Your task to perform on an android device: Open Google Chrome and open the bookmarks view Image 0: 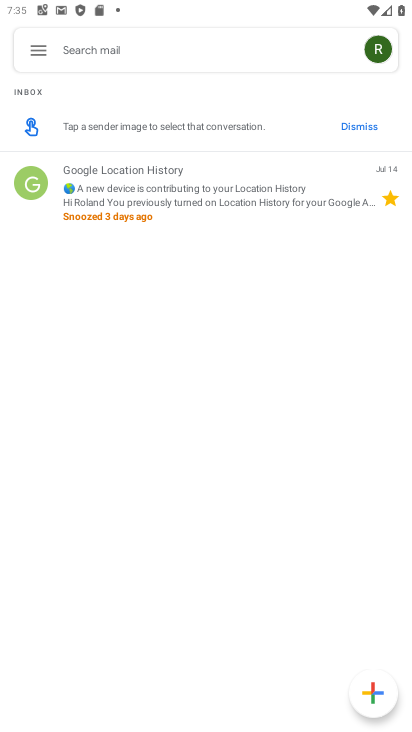
Step 0: press home button
Your task to perform on an android device: Open Google Chrome and open the bookmarks view Image 1: 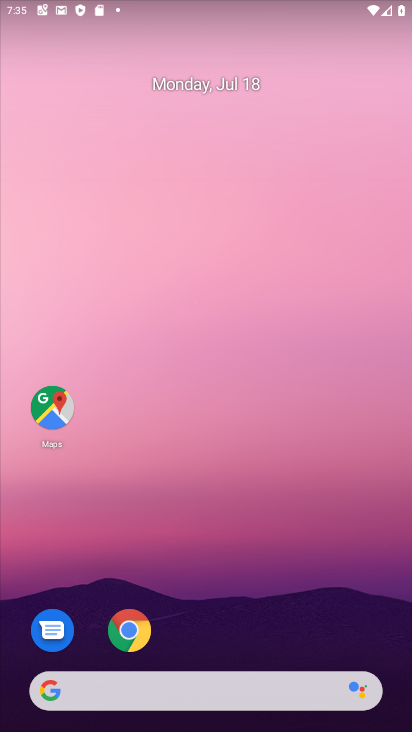
Step 1: drag from (296, 542) to (294, 178)
Your task to perform on an android device: Open Google Chrome and open the bookmarks view Image 2: 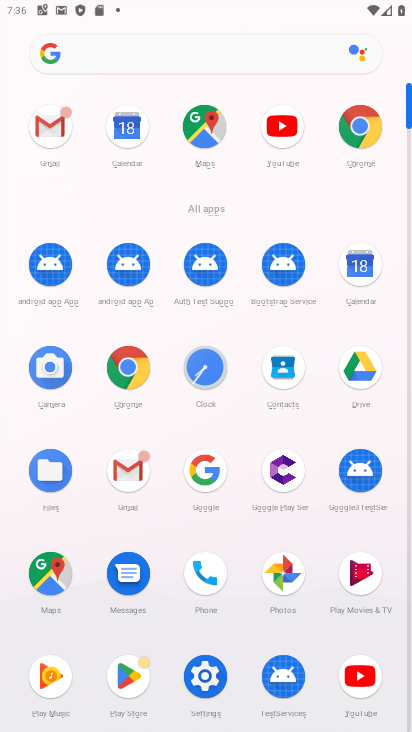
Step 2: click (123, 374)
Your task to perform on an android device: Open Google Chrome and open the bookmarks view Image 3: 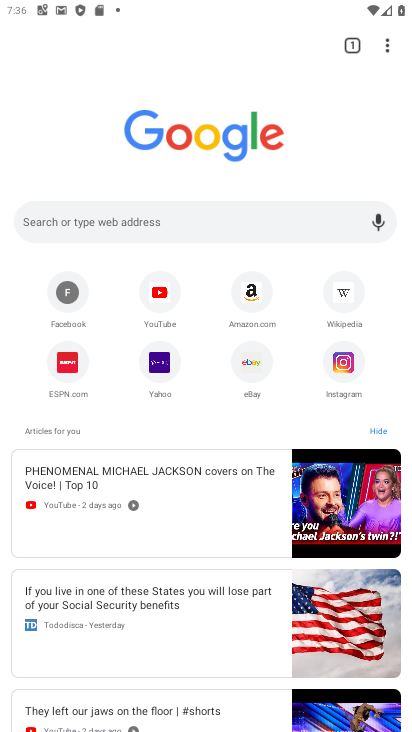
Step 3: click (385, 48)
Your task to perform on an android device: Open Google Chrome and open the bookmarks view Image 4: 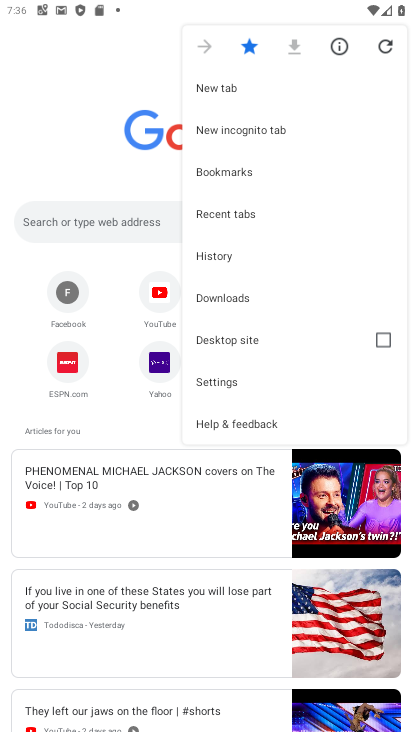
Step 4: click (239, 172)
Your task to perform on an android device: Open Google Chrome and open the bookmarks view Image 5: 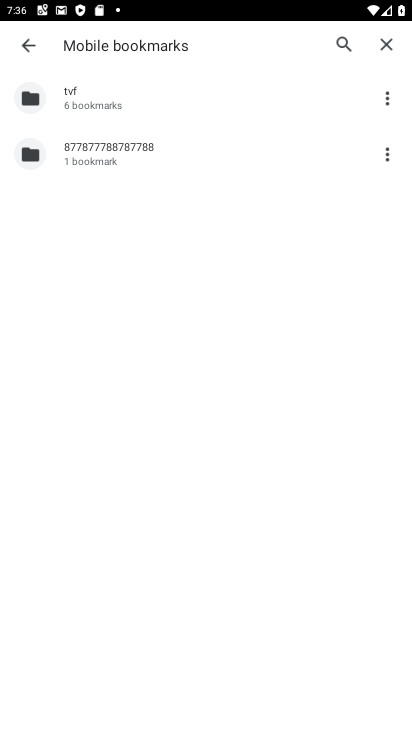
Step 5: task complete